Your task to perform on an android device: turn smart compose on in the gmail app Image 0: 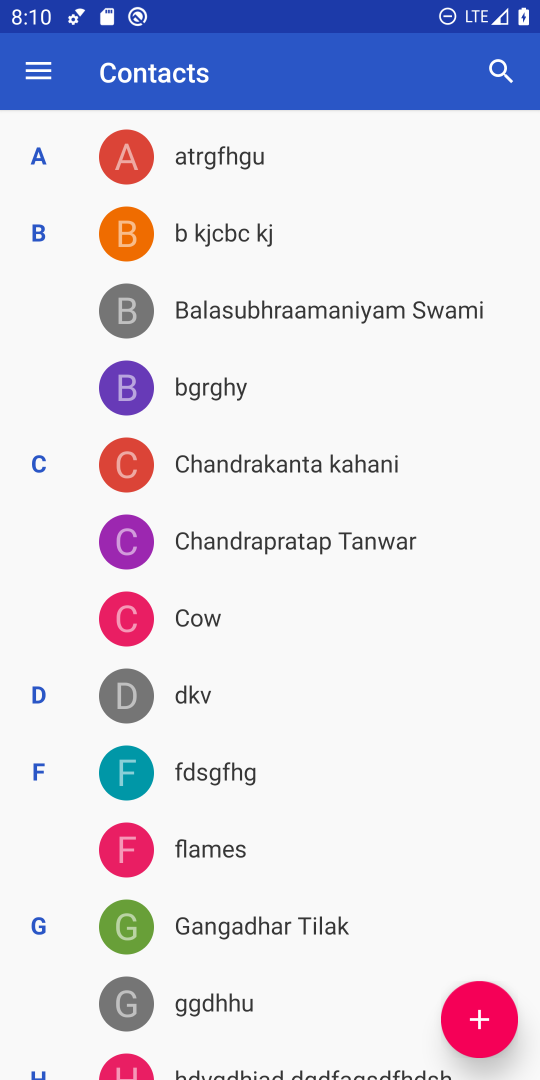
Step 0: press home button
Your task to perform on an android device: turn smart compose on in the gmail app Image 1: 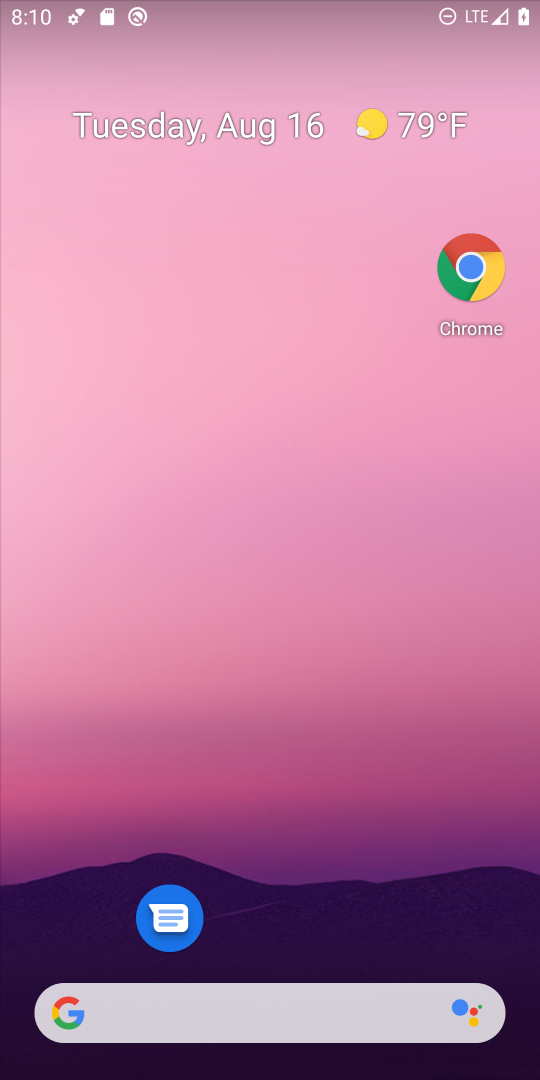
Step 1: drag from (301, 895) to (534, 606)
Your task to perform on an android device: turn smart compose on in the gmail app Image 2: 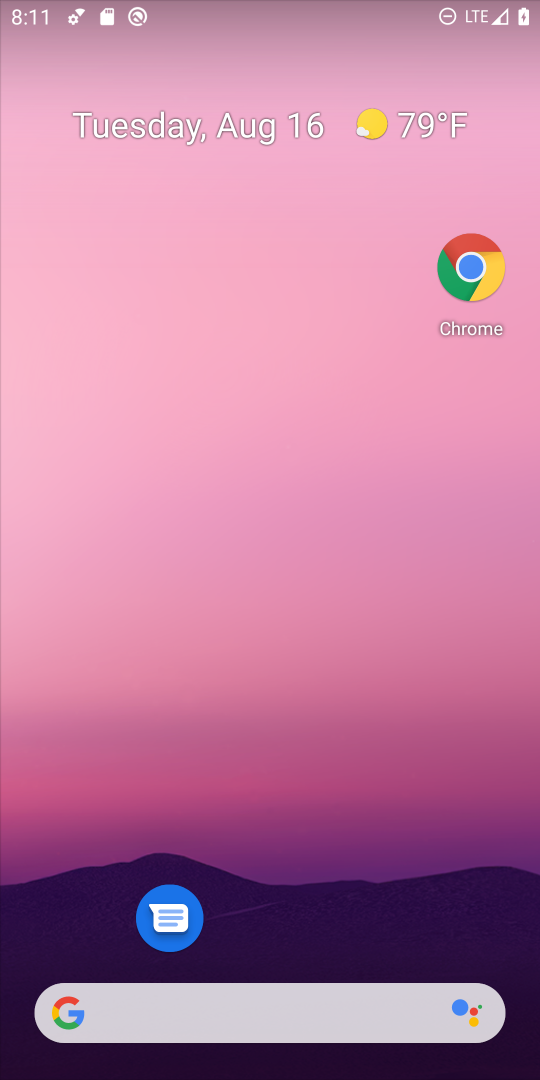
Step 2: drag from (262, 917) to (308, 23)
Your task to perform on an android device: turn smart compose on in the gmail app Image 3: 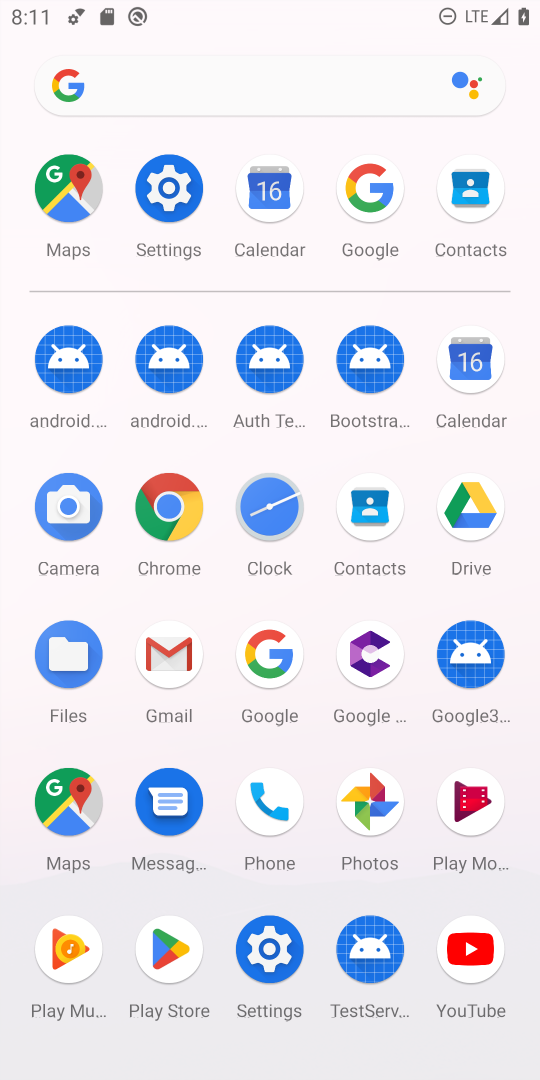
Step 3: click (159, 687)
Your task to perform on an android device: turn smart compose on in the gmail app Image 4: 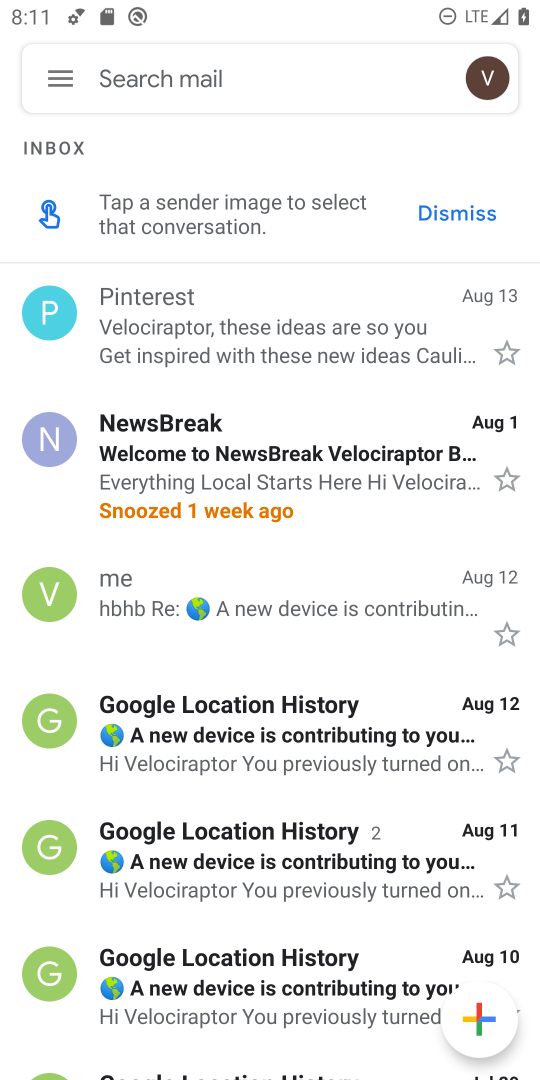
Step 4: click (67, 65)
Your task to perform on an android device: turn smart compose on in the gmail app Image 5: 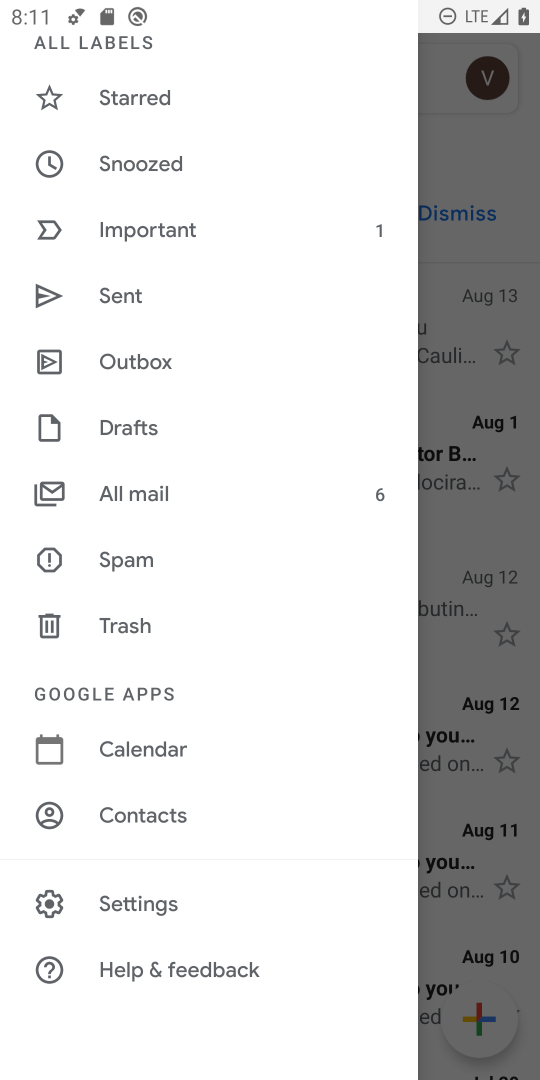
Step 5: click (124, 900)
Your task to perform on an android device: turn smart compose on in the gmail app Image 6: 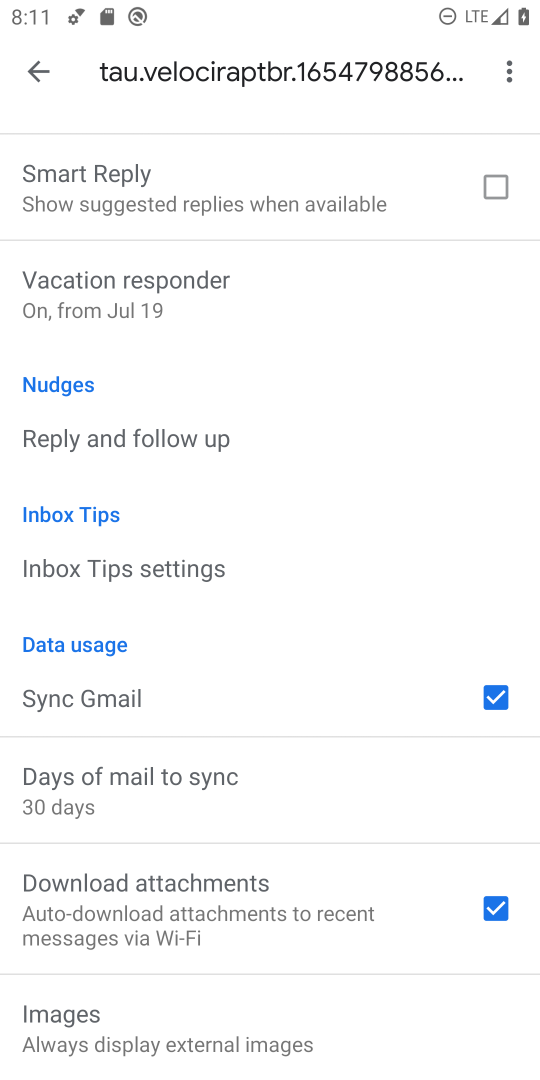
Step 6: task complete